Your task to perform on an android device: toggle pop-ups in chrome Image 0: 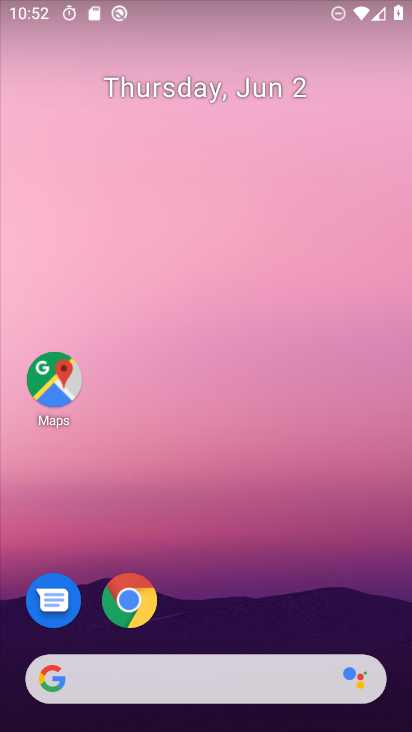
Step 0: click (133, 593)
Your task to perform on an android device: toggle pop-ups in chrome Image 1: 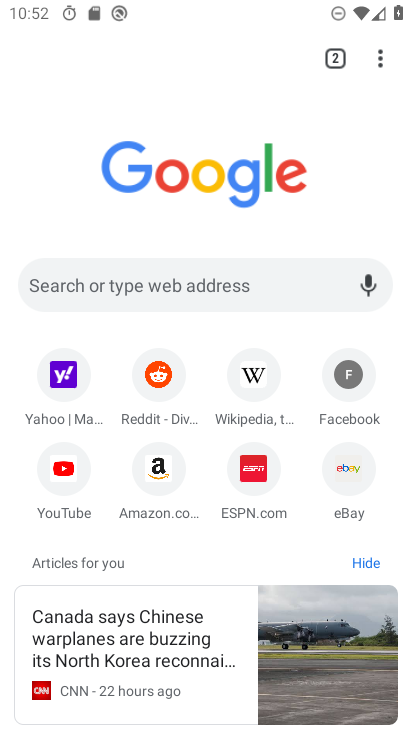
Step 1: click (377, 52)
Your task to perform on an android device: toggle pop-ups in chrome Image 2: 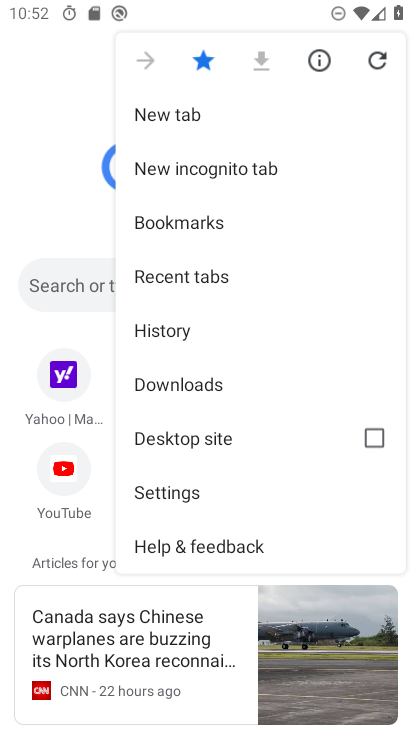
Step 2: click (187, 492)
Your task to perform on an android device: toggle pop-ups in chrome Image 3: 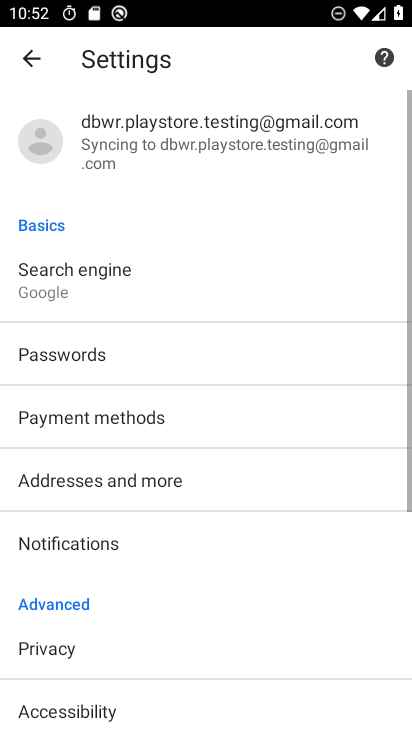
Step 3: drag from (120, 600) to (111, 50)
Your task to perform on an android device: toggle pop-ups in chrome Image 4: 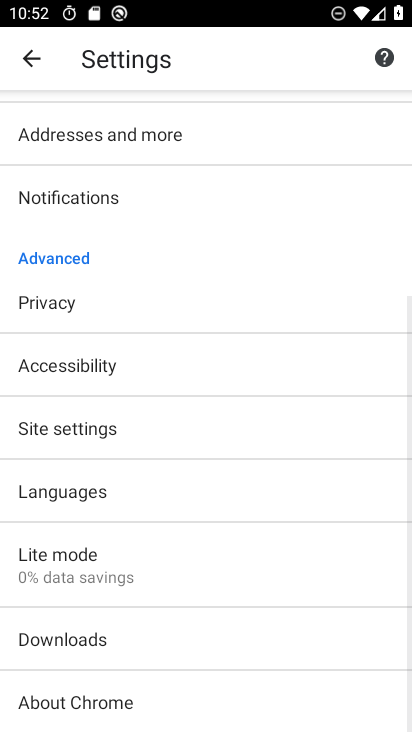
Step 4: click (60, 438)
Your task to perform on an android device: toggle pop-ups in chrome Image 5: 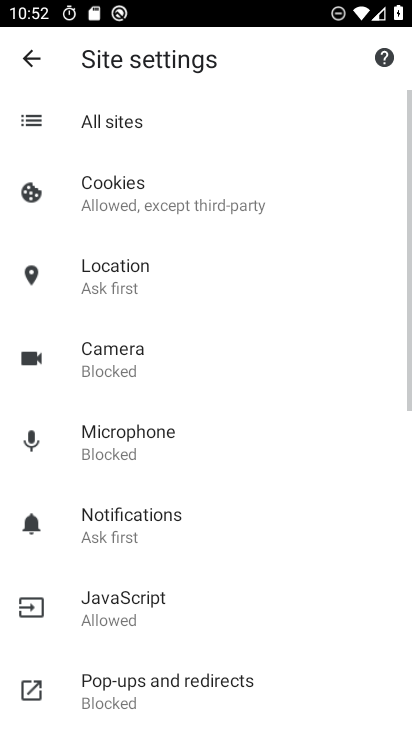
Step 5: drag from (146, 540) to (141, 195)
Your task to perform on an android device: toggle pop-ups in chrome Image 6: 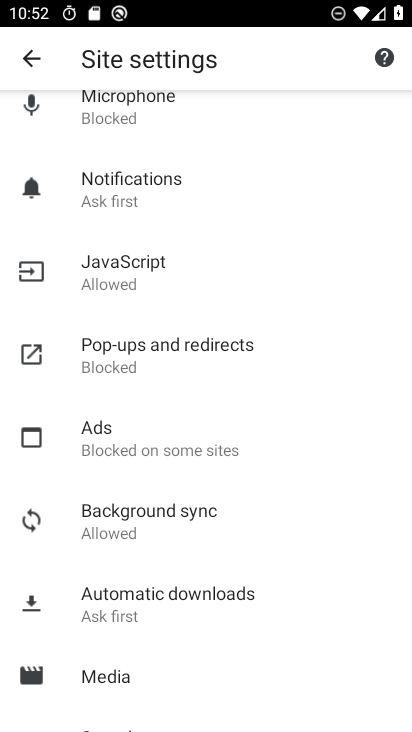
Step 6: click (139, 345)
Your task to perform on an android device: toggle pop-ups in chrome Image 7: 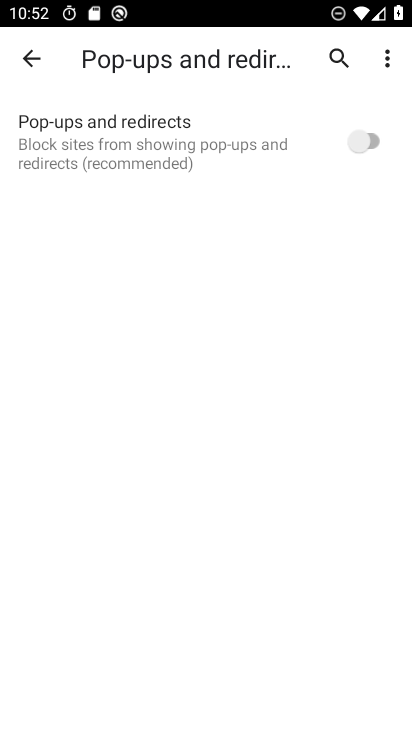
Step 7: click (378, 136)
Your task to perform on an android device: toggle pop-ups in chrome Image 8: 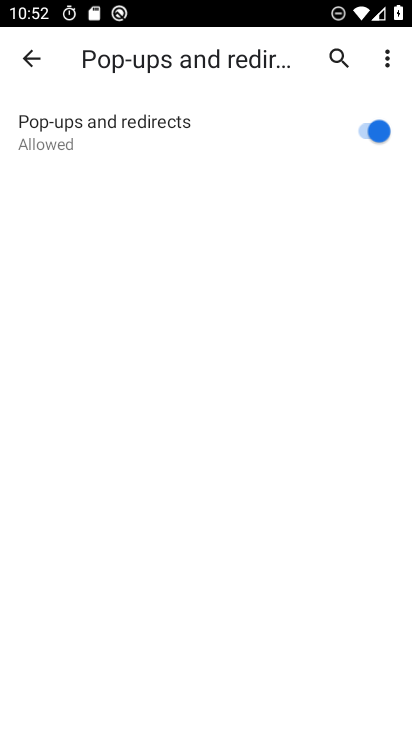
Step 8: task complete